Your task to perform on an android device: Is it going to rain today? Image 0: 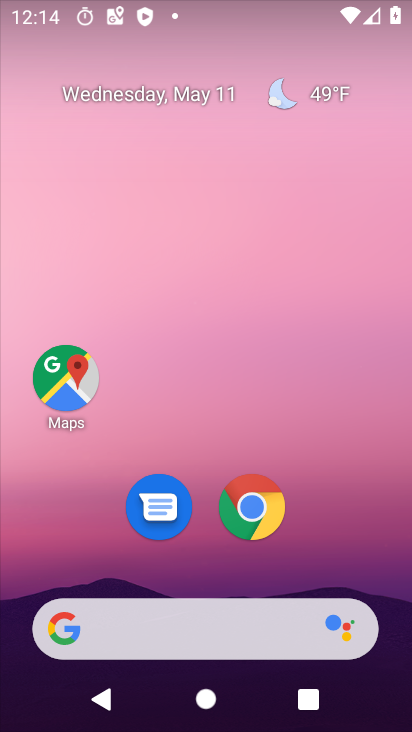
Step 0: drag from (198, 560) to (204, 114)
Your task to perform on an android device: Is it going to rain today? Image 1: 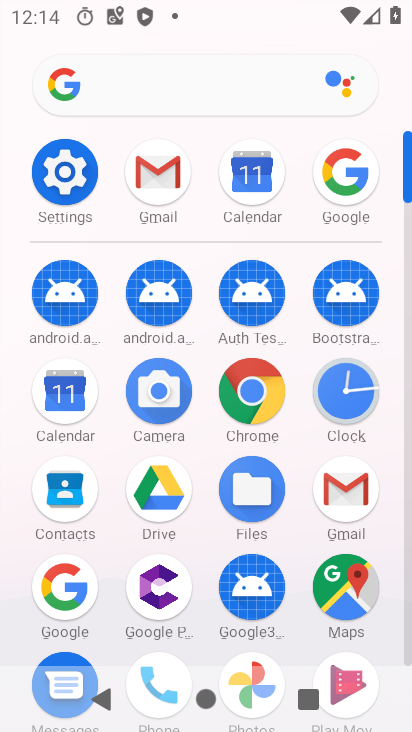
Step 1: click (65, 588)
Your task to perform on an android device: Is it going to rain today? Image 2: 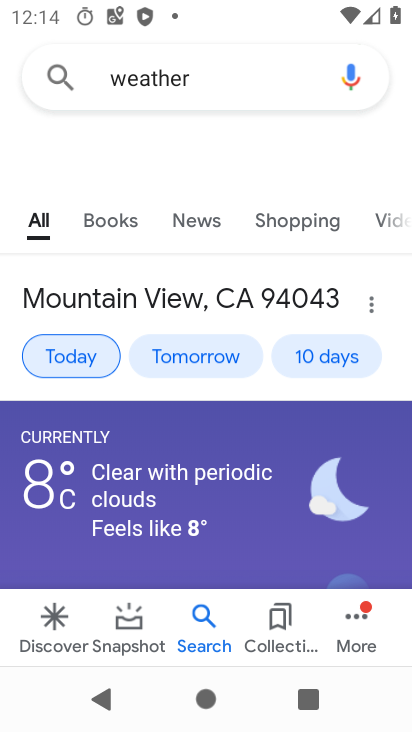
Step 2: click (244, 74)
Your task to perform on an android device: Is it going to rain today? Image 3: 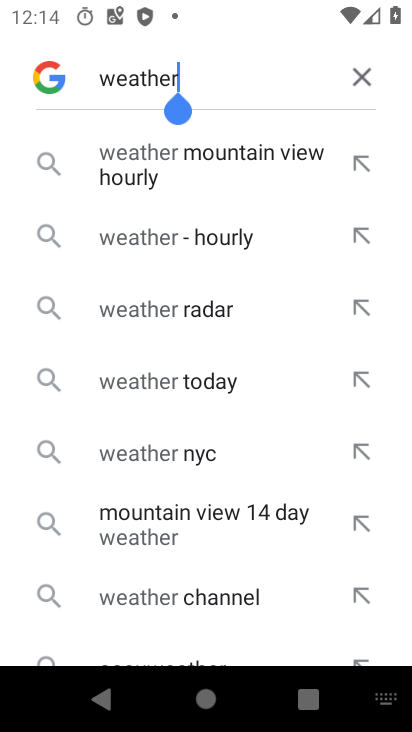
Step 3: click (351, 69)
Your task to perform on an android device: Is it going to rain today? Image 4: 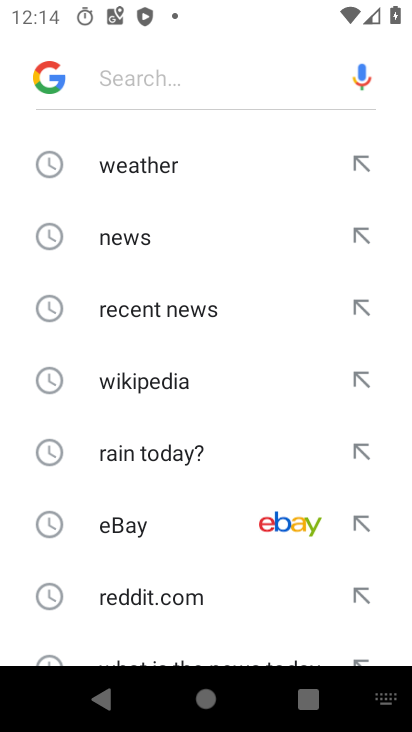
Step 4: type "is it going to rain today"
Your task to perform on an android device: Is it going to rain today? Image 5: 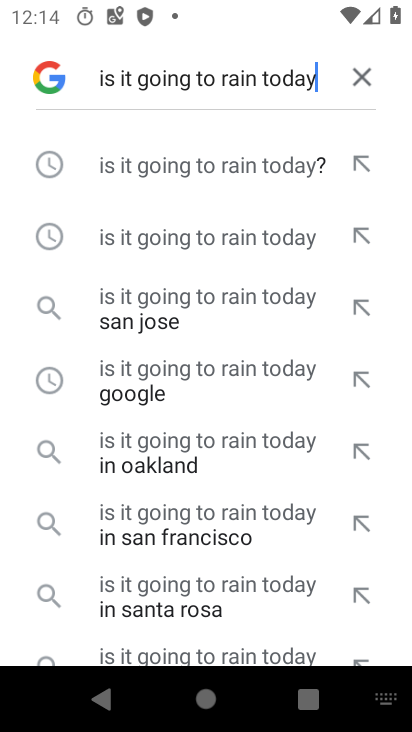
Step 5: click (254, 163)
Your task to perform on an android device: Is it going to rain today? Image 6: 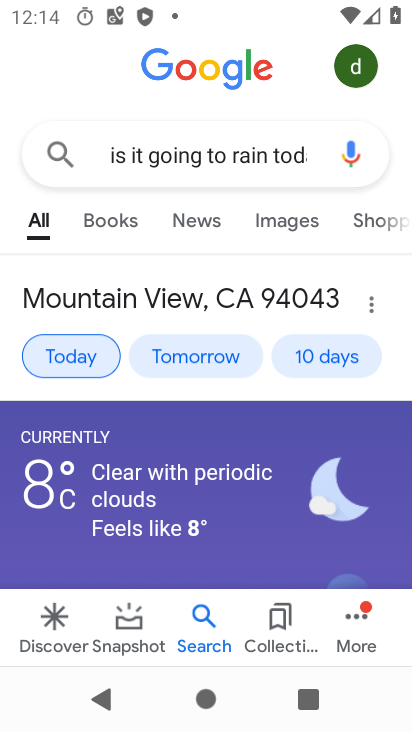
Step 6: task complete